Your task to perform on an android device: Go to eBay Image 0: 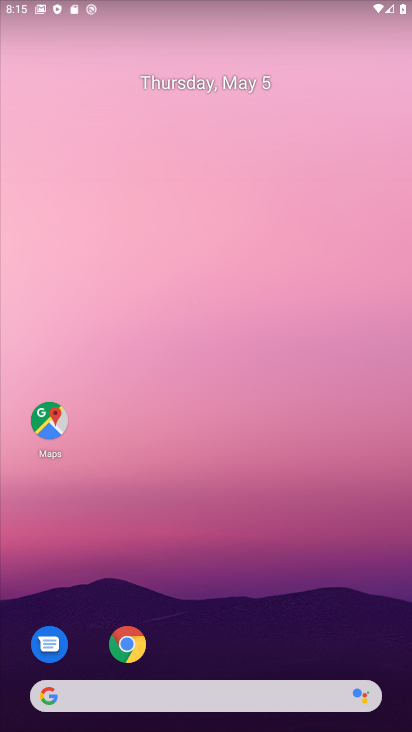
Step 0: drag from (279, 602) to (341, 15)
Your task to perform on an android device: Go to eBay Image 1: 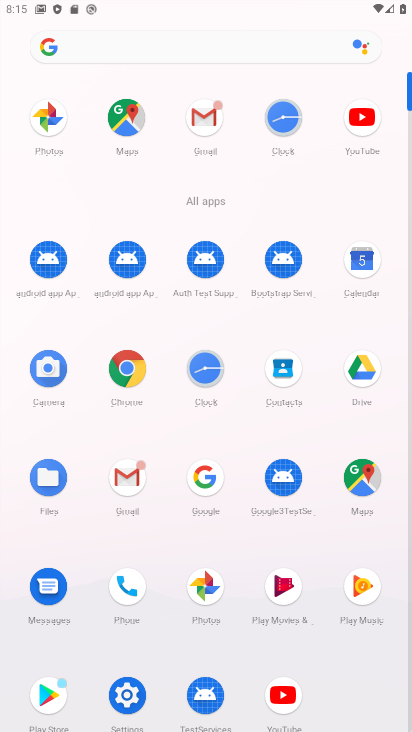
Step 1: click (113, 378)
Your task to perform on an android device: Go to eBay Image 2: 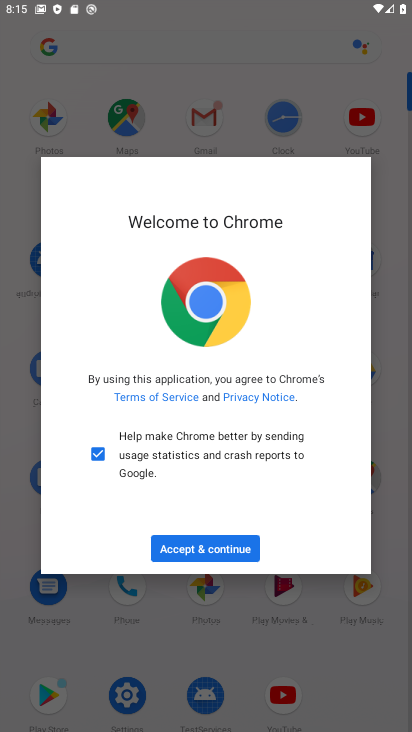
Step 2: click (218, 543)
Your task to perform on an android device: Go to eBay Image 3: 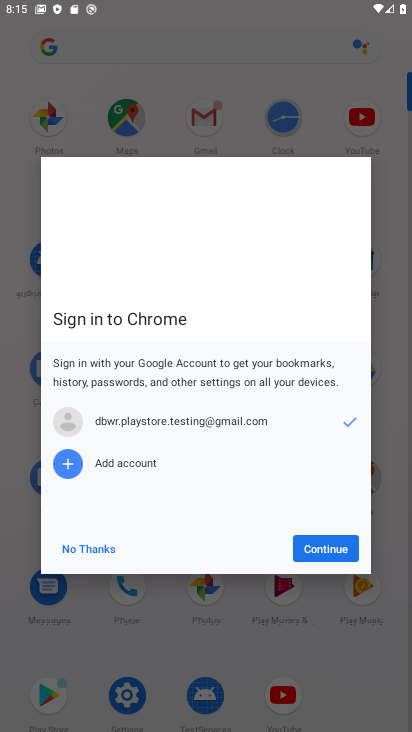
Step 3: click (332, 553)
Your task to perform on an android device: Go to eBay Image 4: 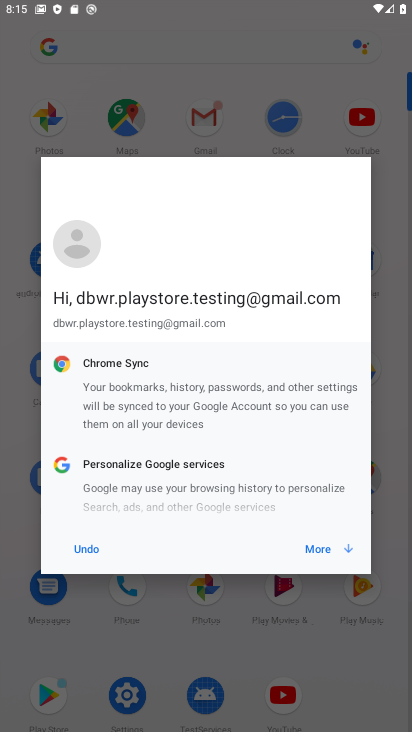
Step 4: click (332, 553)
Your task to perform on an android device: Go to eBay Image 5: 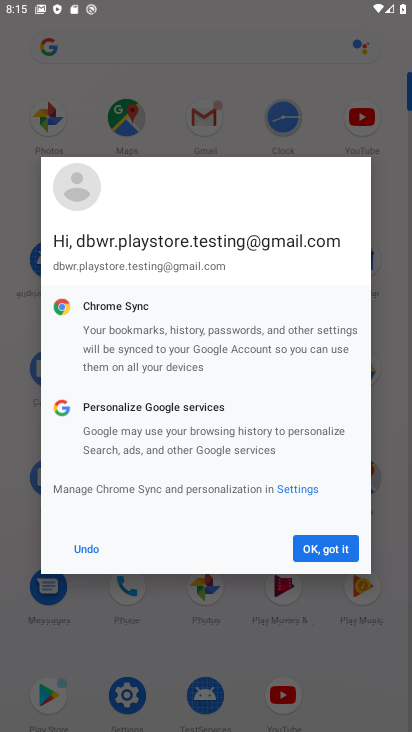
Step 5: click (332, 553)
Your task to perform on an android device: Go to eBay Image 6: 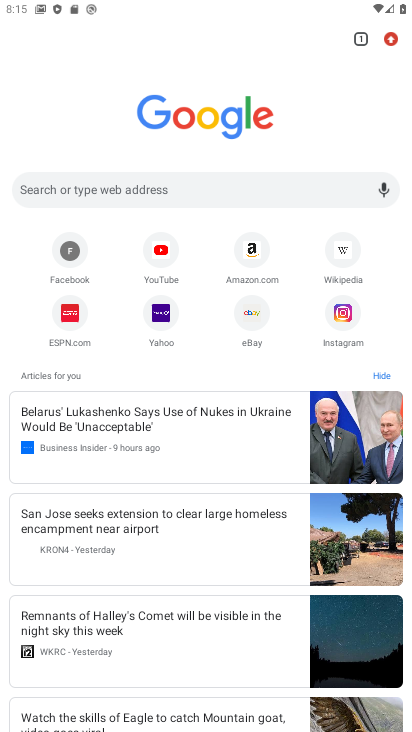
Step 6: click (248, 313)
Your task to perform on an android device: Go to eBay Image 7: 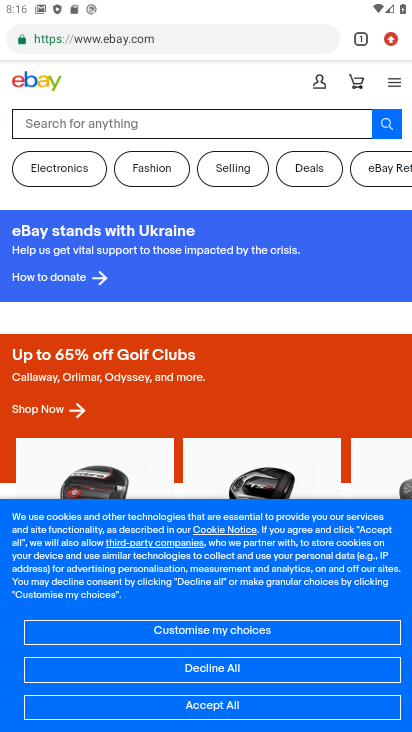
Step 7: task complete